Your task to perform on an android device: Open Youtube and go to the subscriptions tab Image 0: 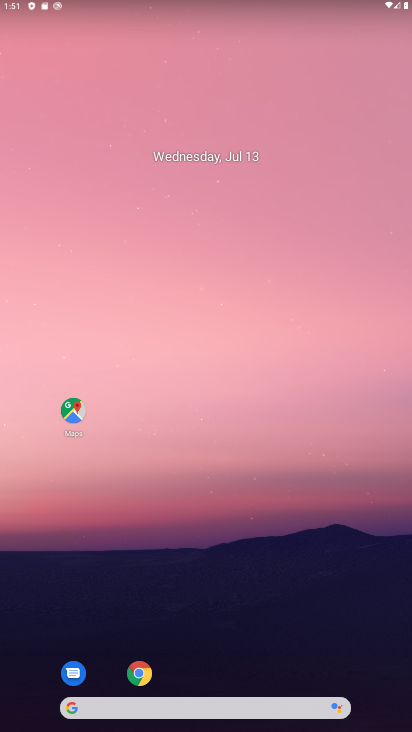
Step 0: drag from (230, 611) to (235, 45)
Your task to perform on an android device: Open Youtube and go to the subscriptions tab Image 1: 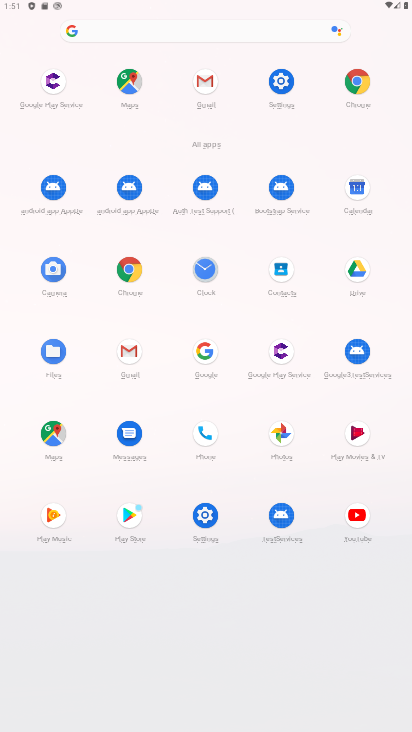
Step 1: click (364, 515)
Your task to perform on an android device: Open Youtube and go to the subscriptions tab Image 2: 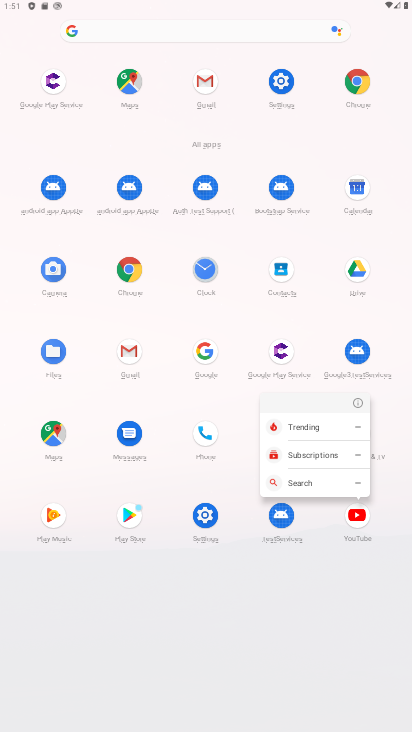
Step 2: click (364, 514)
Your task to perform on an android device: Open Youtube and go to the subscriptions tab Image 3: 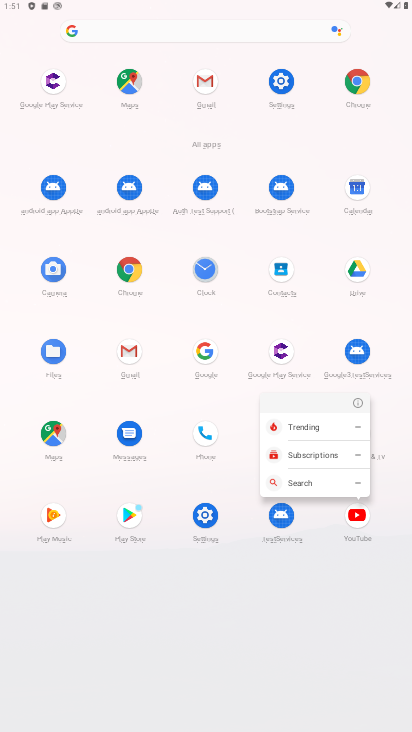
Step 3: click (362, 517)
Your task to perform on an android device: Open Youtube and go to the subscriptions tab Image 4: 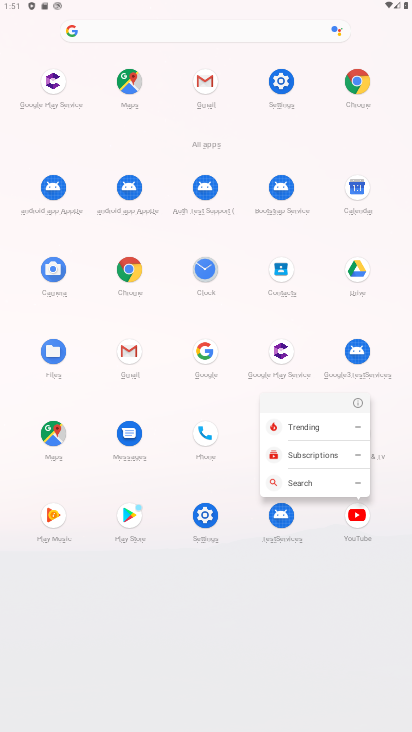
Step 4: click (363, 517)
Your task to perform on an android device: Open Youtube and go to the subscriptions tab Image 5: 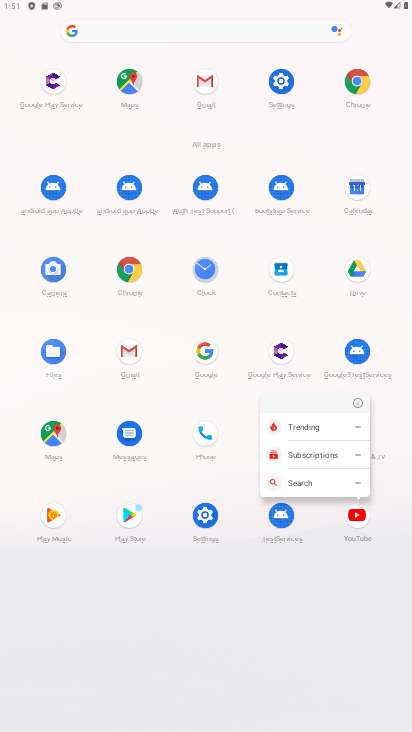
Step 5: click (363, 517)
Your task to perform on an android device: Open Youtube and go to the subscriptions tab Image 6: 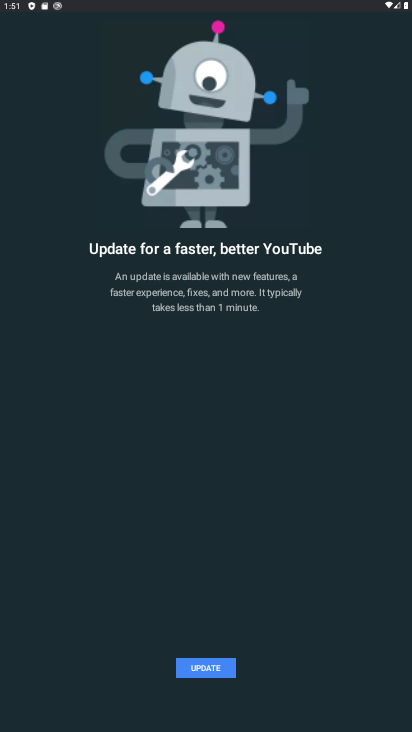
Step 6: click (211, 656)
Your task to perform on an android device: Open Youtube and go to the subscriptions tab Image 7: 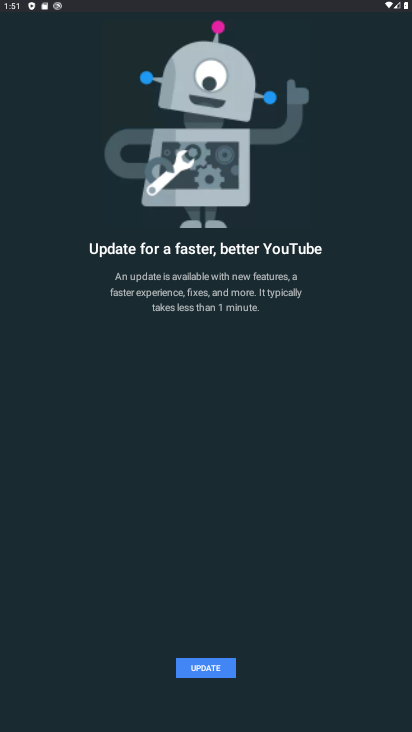
Step 7: click (202, 670)
Your task to perform on an android device: Open Youtube and go to the subscriptions tab Image 8: 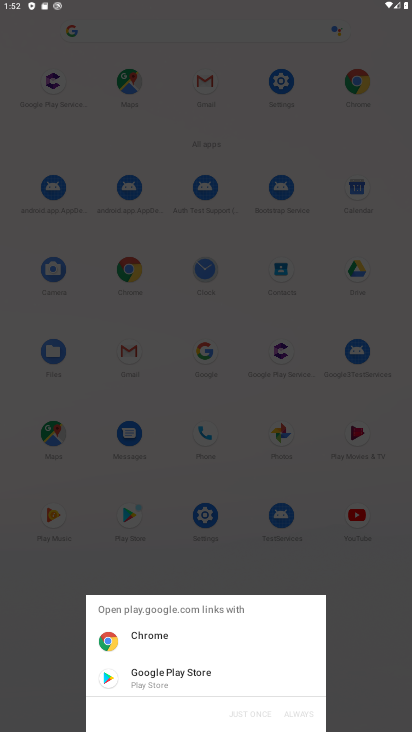
Step 8: click (119, 671)
Your task to perform on an android device: Open Youtube and go to the subscriptions tab Image 9: 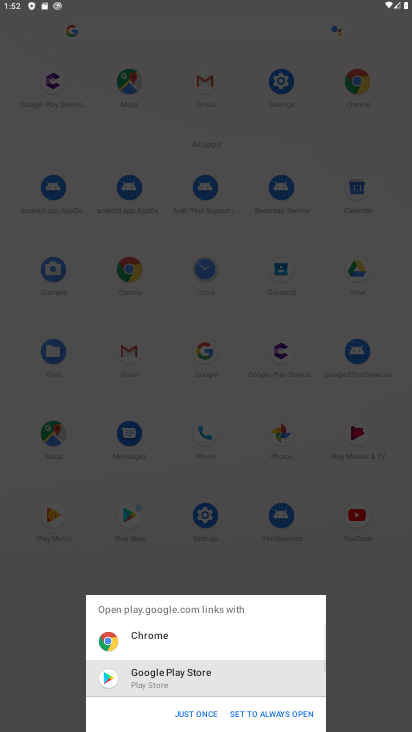
Step 9: click (192, 720)
Your task to perform on an android device: Open Youtube and go to the subscriptions tab Image 10: 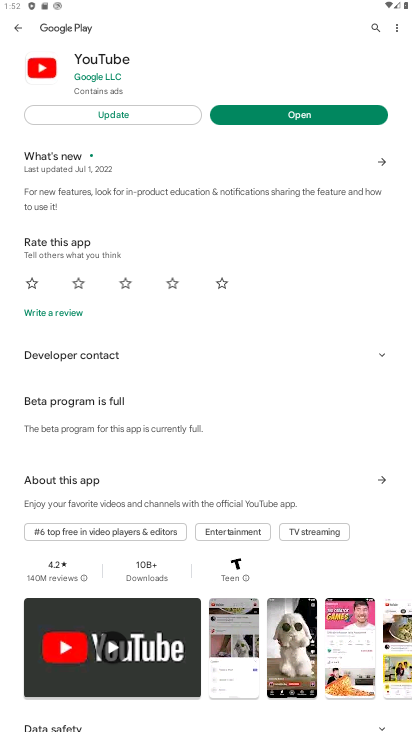
Step 10: click (117, 108)
Your task to perform on an android device: Open Youtube and go to the subscriptions tab Image 11: 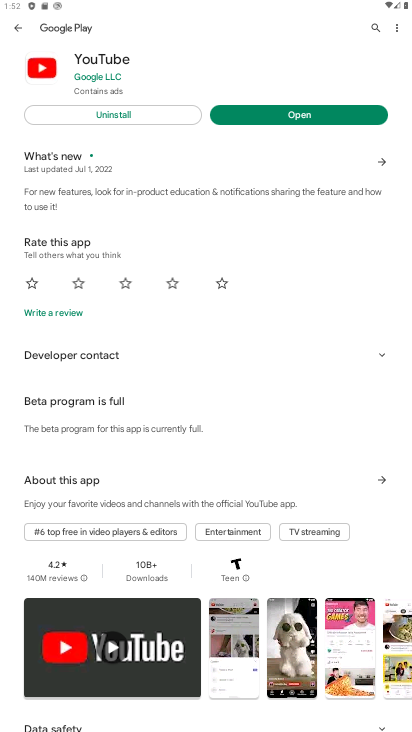
Step 11: click (254, 127)
Your task to perform on an android device: Open Youtube and go to the subscriptions tab Image 12: 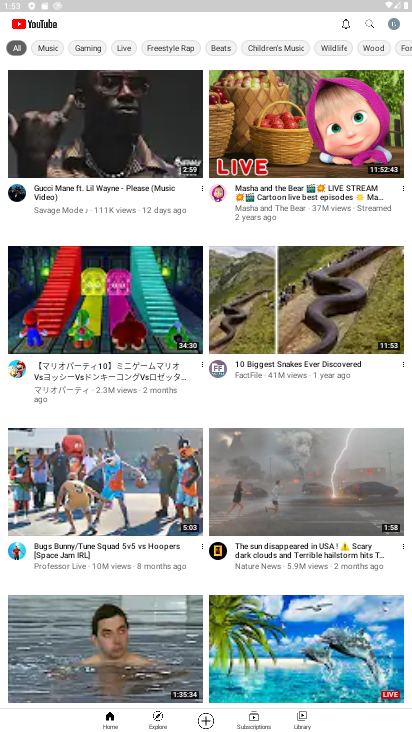
Step 12: click (258, 721)
Your task to perform on an android device: Open Youtube and go to the subscriptions tab Image 13: 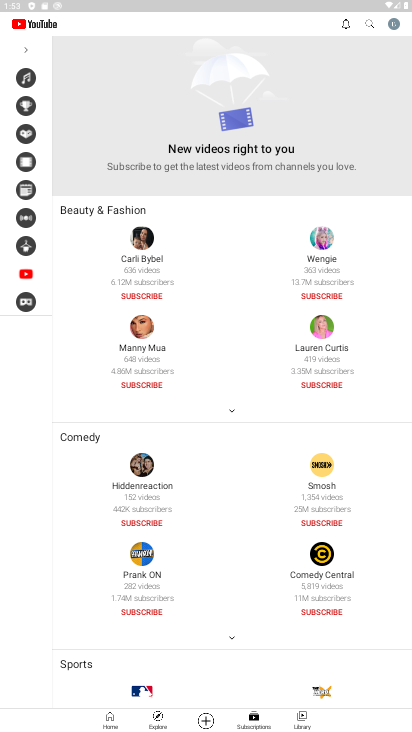
Step 13: task complete